Your task to perform on an android device: Go to Yahoo.com Image 0: 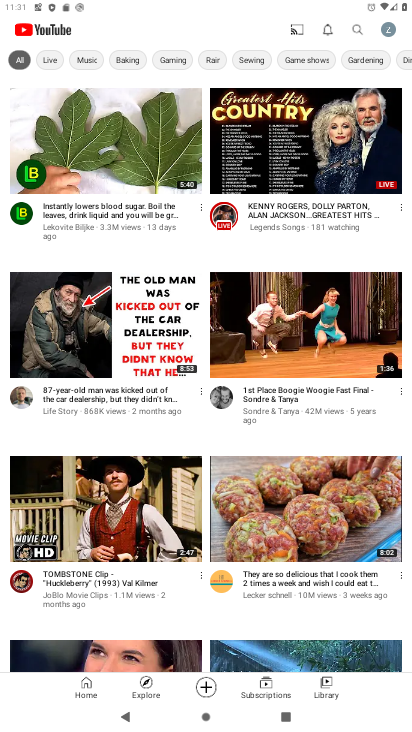
Step 0: press home button
Your task to perform on an android device: Go to Yahoo.com Image 1: 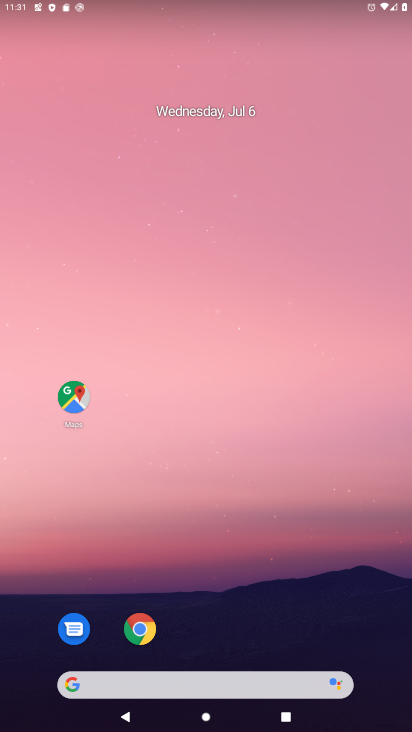
Step 1: click (139, 628)
Your task to perform on an android device: Go to Yahoo.com Image 2: 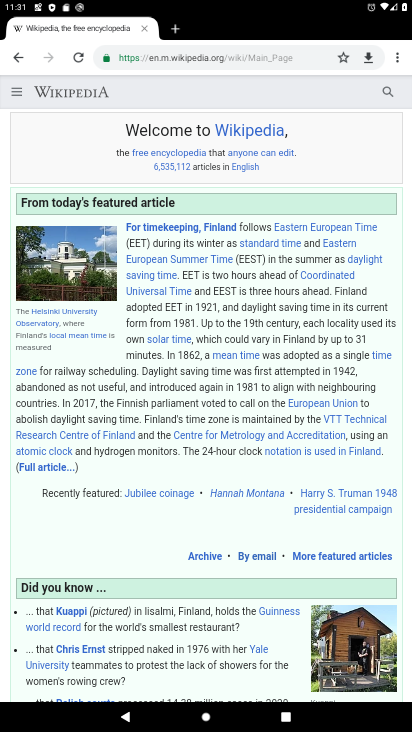
Step 2: click (174, 30)
Your task to perform on an android device: Go to Yahoo.com Image 3: 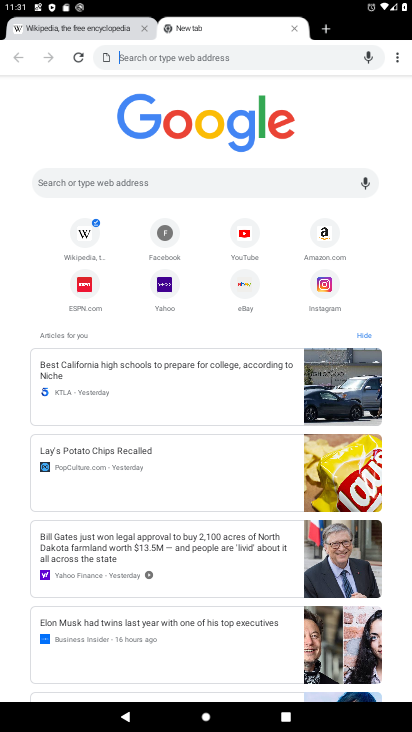
Step 3: click (177, 178)
Your task to perform on an android device: Go to Yahoo.com Image 4: 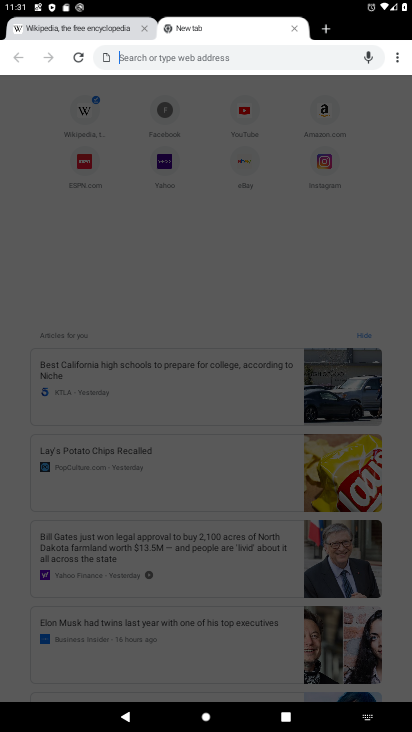
Step 4: type "Yahoo.com"
Your task to perform on an android device: Go to Yahoo.com Image 5: 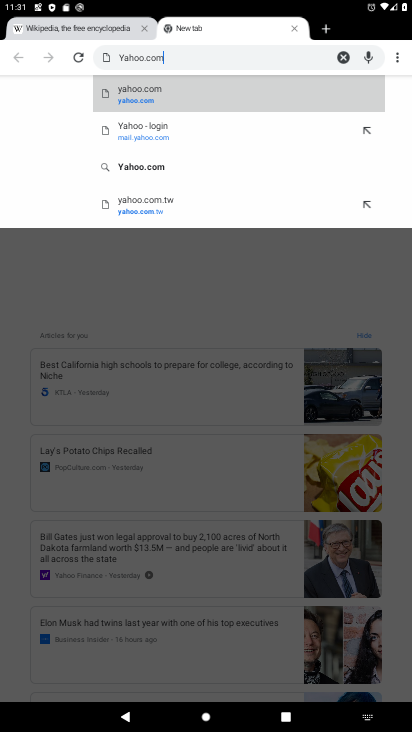
Step 5: click (154, 169)
Your task to perform on an android device: Go to Yahoo.com Image 6: 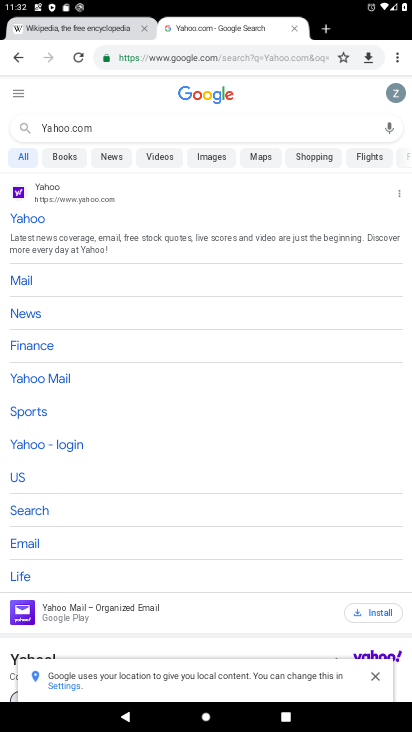
Step 6: click (60, 199)
Your task to perform on an android device: Go to Yahoo.com Image 7: 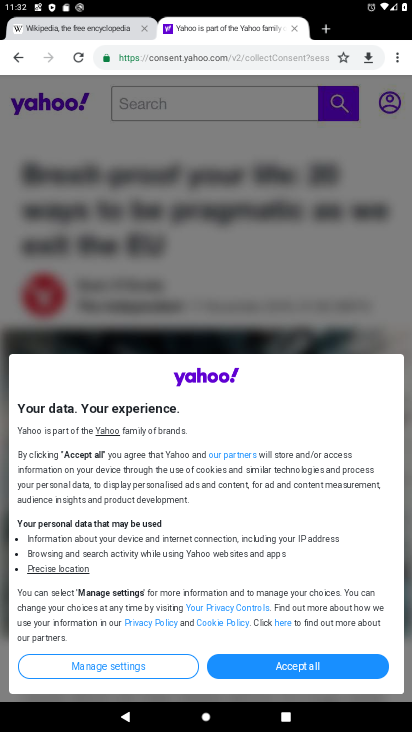
Step 7: click (305, 673)
Your task to perform on an android device: Go to Yahoo.com Image 8: 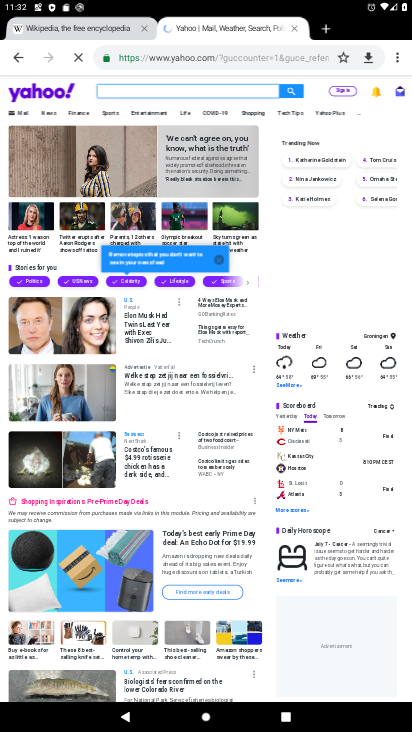
Step 8: task complete